Your task to perform on an android device: Open Google Maps Image 0: 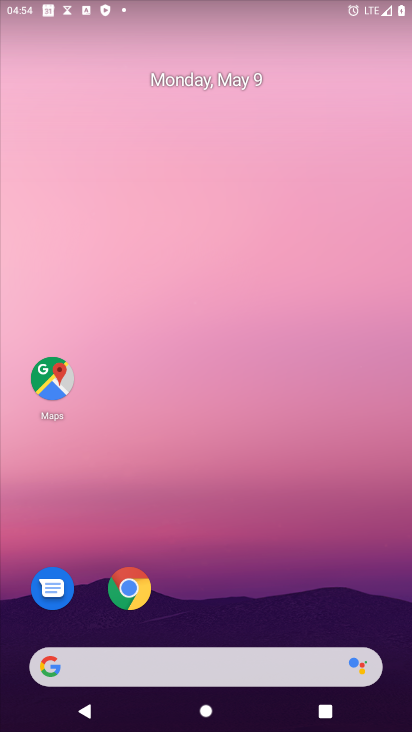
Step 0: drag from (258, 518) to (228, 47)
Your task to perform on an android device: Open Google Maps Image 1: 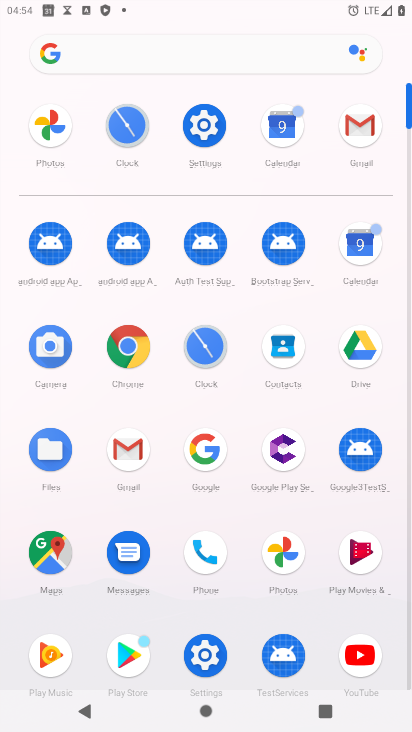
Step 1: click (53, 558)
Your task to perform on an android device: Open Google Maps Image 2: 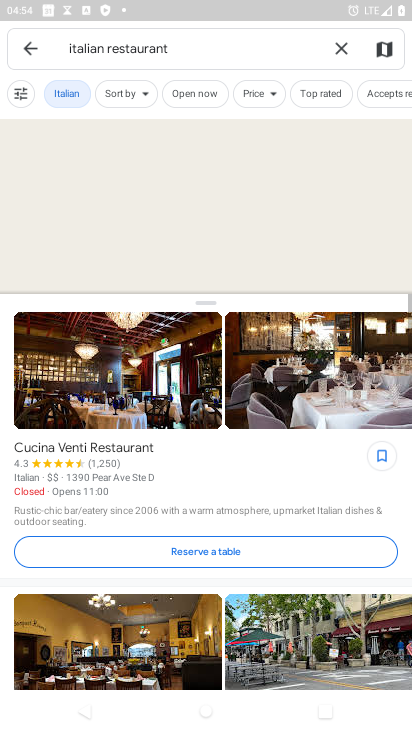
Step 2: task complete